Your task to perform on an android device: open sync settings in chrome Image 0: 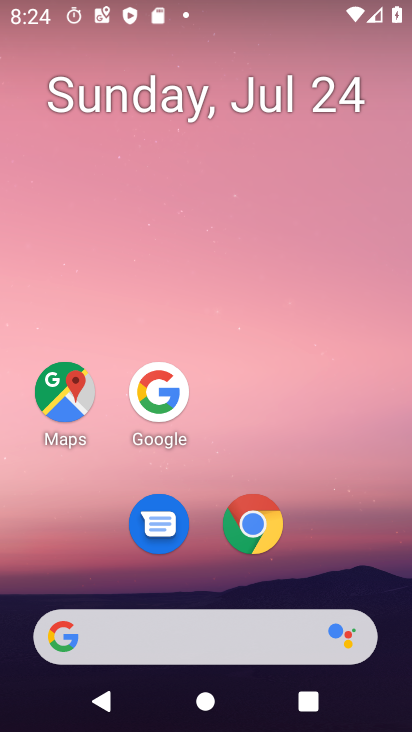
Step 0: press home button
Your task to perform on an android device: open sync settings in chrome Image 1: 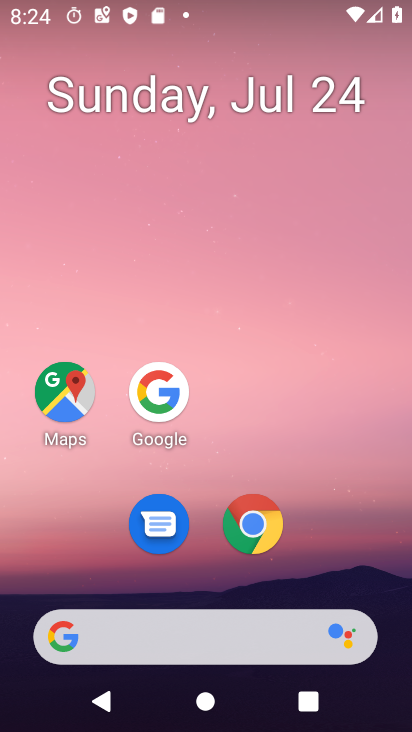
Step 1: click (260, 532)
Your task to perform on an android device: open sync settings in chrome Image 2: 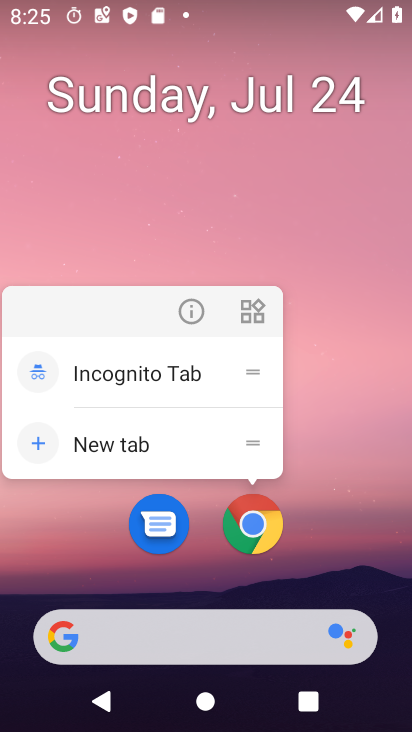
Step 2: click (253, 523)
Your task to perform on an android device: open sync settings in chrome Image 3: 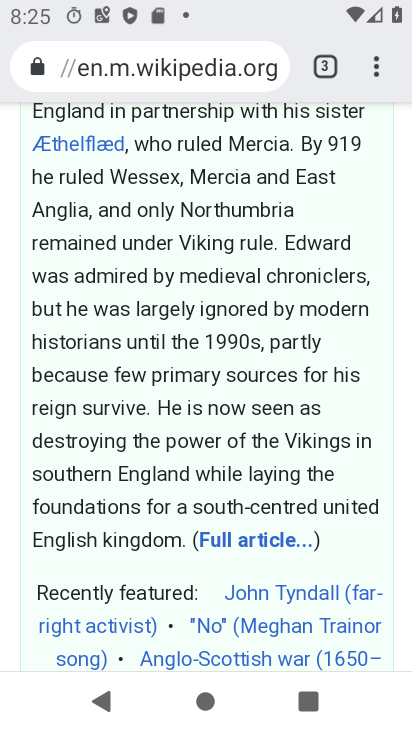
Step 3: drag from (377, 69) to (223, 519)
Your task to perform on an android device: open sync settings in chrome Image 4: 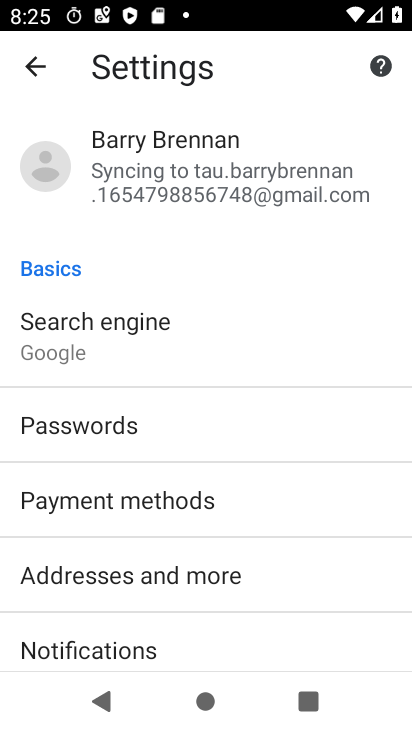
Step 4: click (238, 179)
Your task to perform on an android device: open sync settings in chrome Image 5: 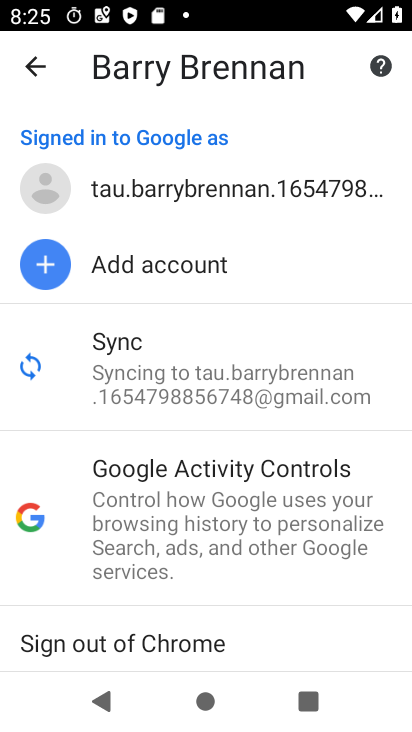
Step 5: click (209, 351)
Your task to perform on an android device: open sync settings in chrome Image 6: 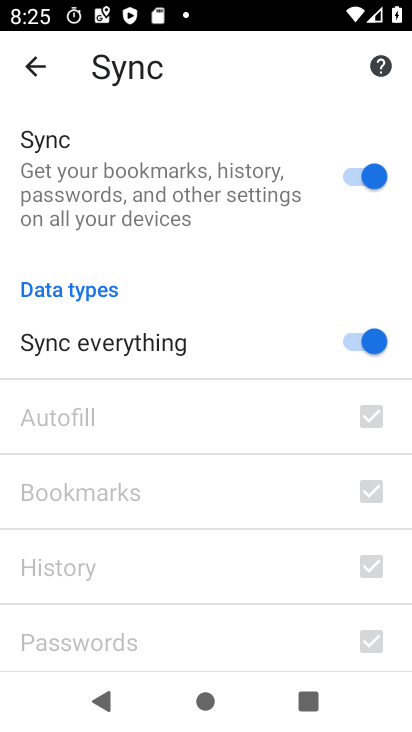
Step 6: task complete